Your task to perform on an android device: Search for pizza restaurants on Maps Image 0: 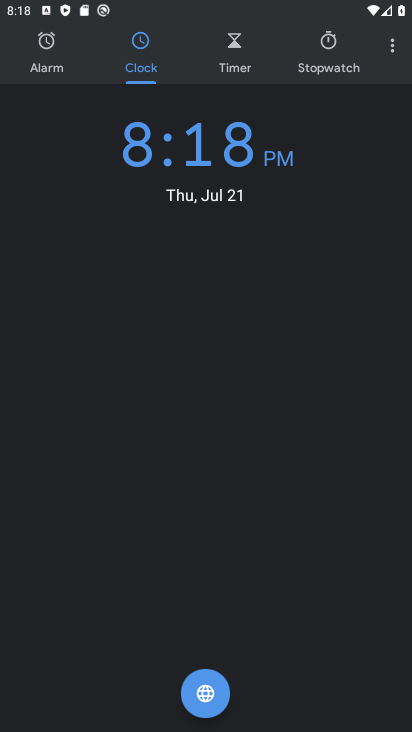
Step 0: press home button
Your task to perform on an android device: Search for pizza restaurants on Maps Image 1: 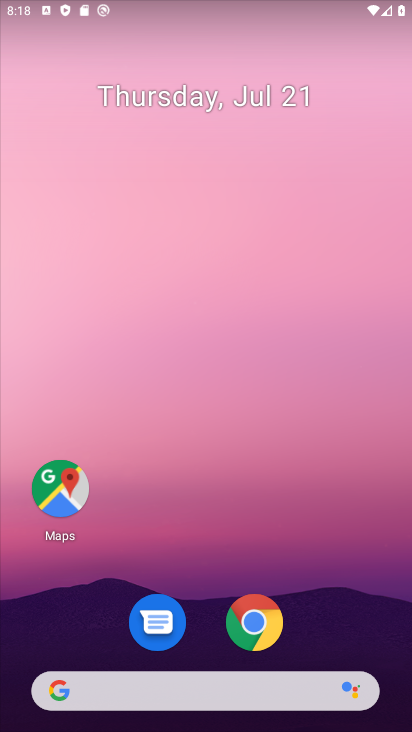
Step 1: click (49, 505)
Your task to perform on an android device: Search for pizza restaurants on Maps Image 2: 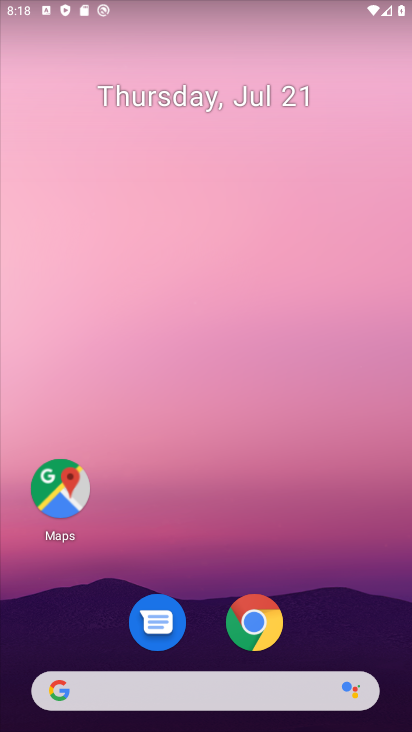
Step 2: click (49, 505)
Your task to perform on an android device: Search for pizza restaurants on Maps Image 3: 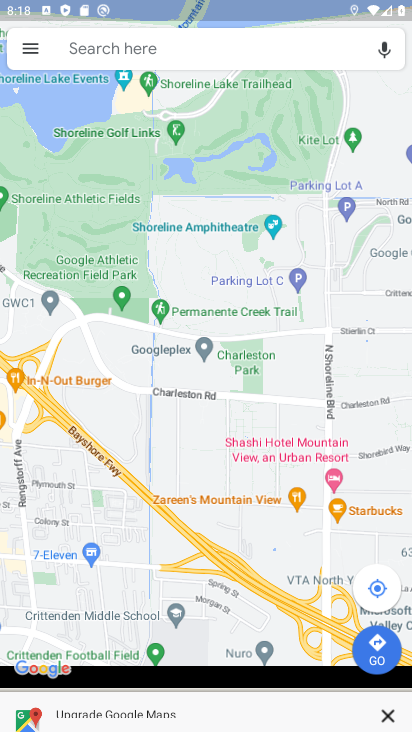
Step 3: click (174, 41)
Your task to perform on an android device: Search for pizza restaurants on Maps Image 4: 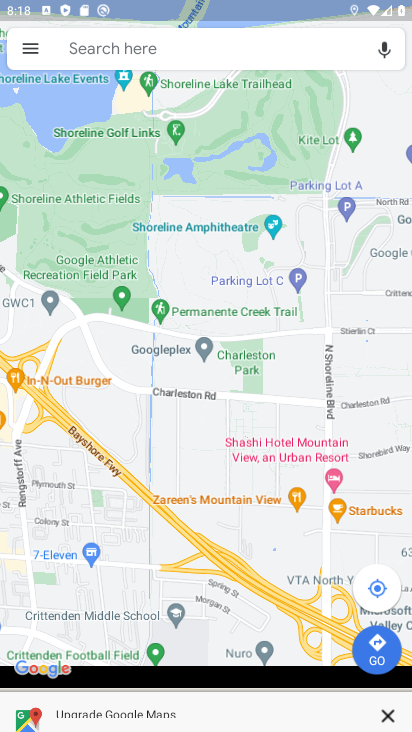
Step 4: click (173, 42)
Your task to perform on an android device: Search for pizza restaurants on Maps Image 5: 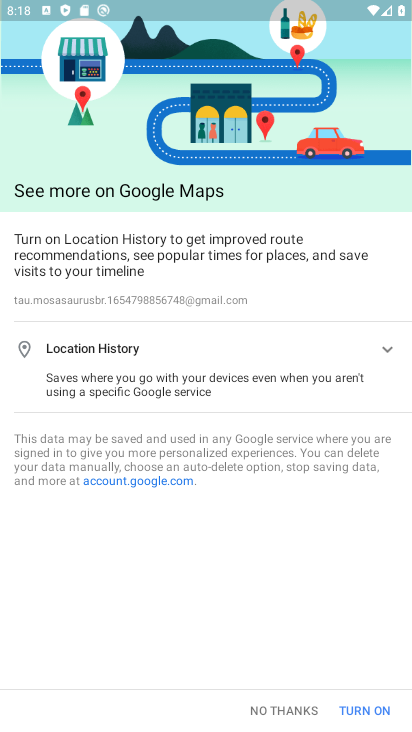
Step 5: click (277, 709)
Your task to perform on an android device: Search for pizza restaurants on Maps Image 6: 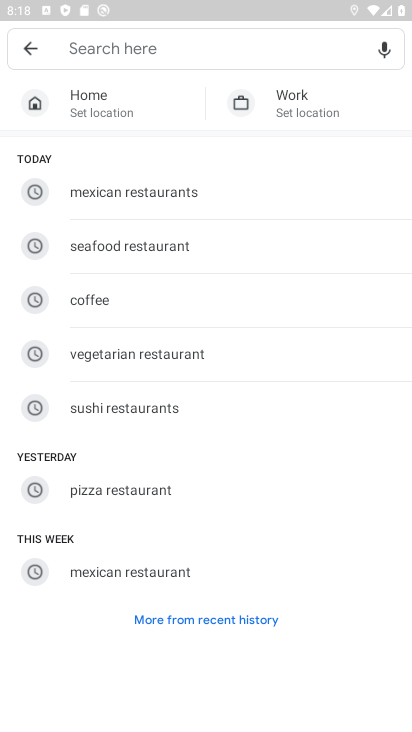
Step 6: click (126, 495)
Your task to perform on an android device: Search for pizza restaurants on Maps Image 7: 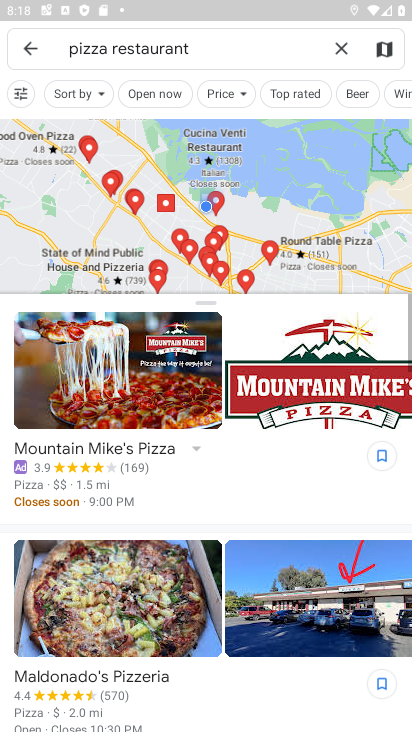
Step 7: task complete